Your task to perform on an android device: Open Chrome and go to the settings page Image 0: 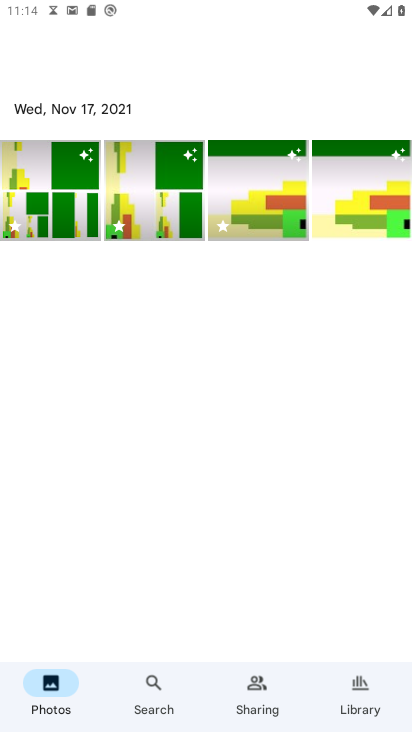
Step 0: drag from (259, 641) to (292, 125)
Your task to perform on an android device: Open Chrome and go to the settings page Image 1: 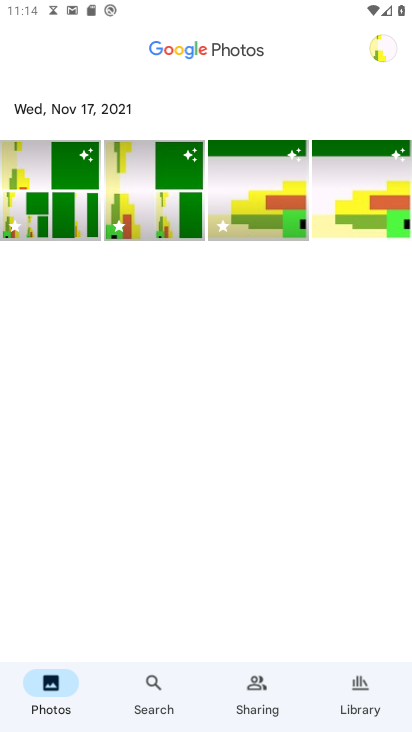
Step 1: press home button
Your task to perform on an android device: Open Chrome and go to the settings page Image 2: 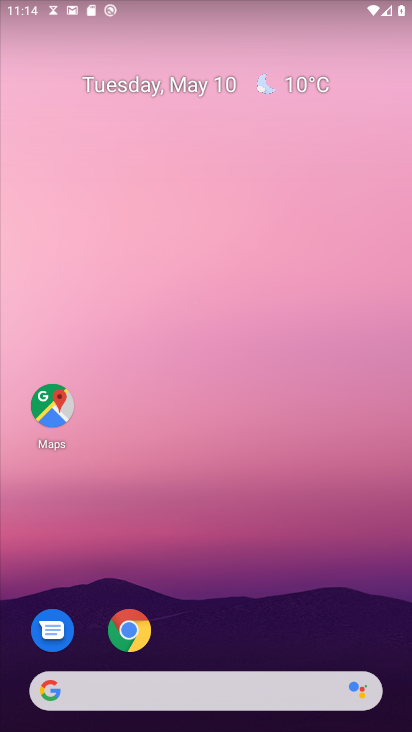
Step 2: drag from (258, 503) to (246, 48)
Your task to perform on an android device: Open Chrome and go to the settings page Image 3: 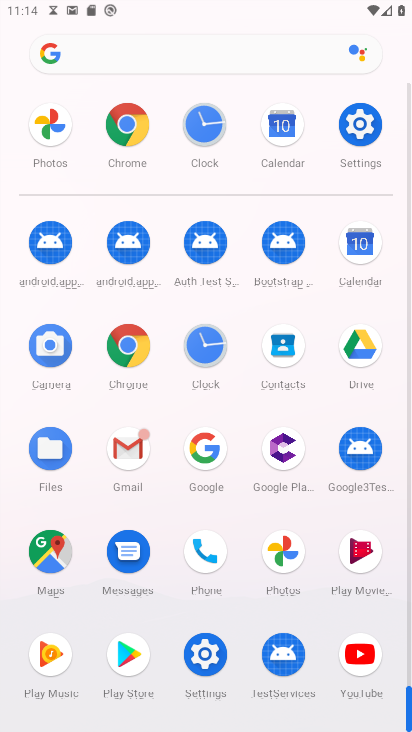
Step 3: click (127, 348)
Your task to perform on an android device: Open Chrome and go to the settings page Image 4: 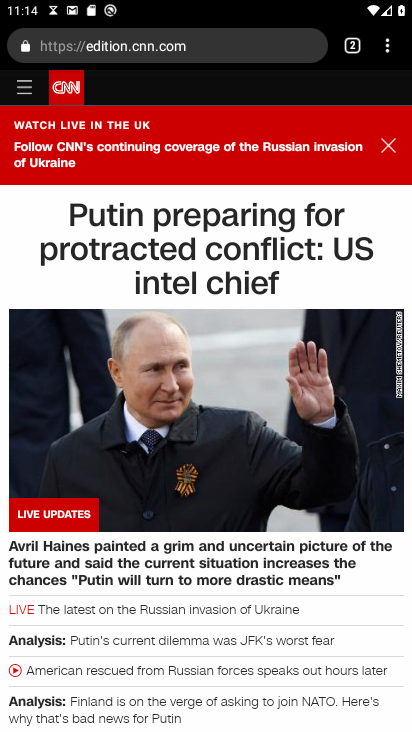
Step 4: click (393, 43)
Your task to perform on an android device: Open Chrome and go to the settings page Image 5: 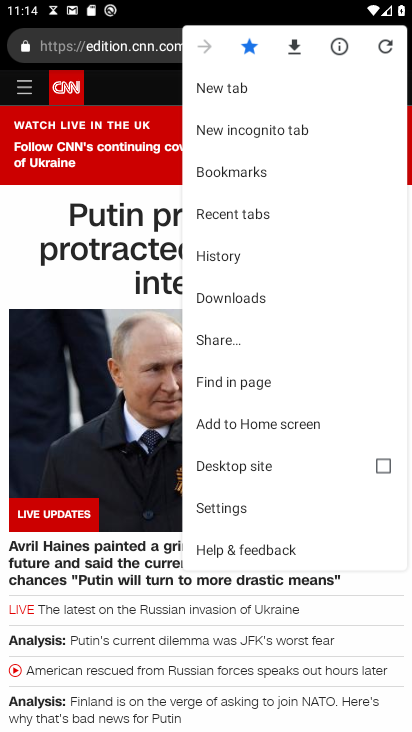
Step 5: click (242, 501)
Your task to perform on an android device: Open Chrome and go to the settings page Image 6: 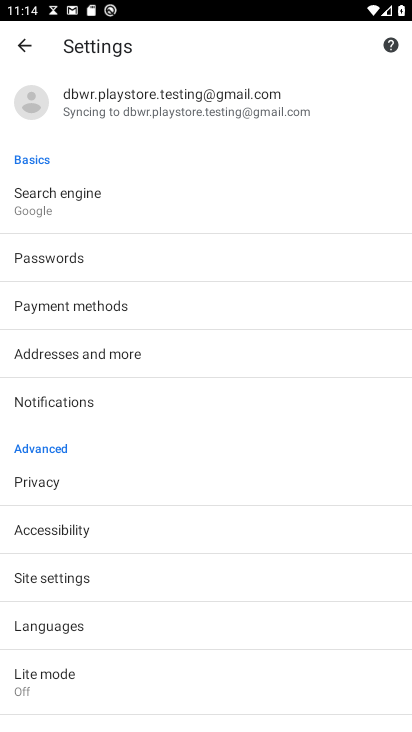
Step 6: task complete